Your task to perform on an android device: Open calendar and show me the first week of next month Image 0: 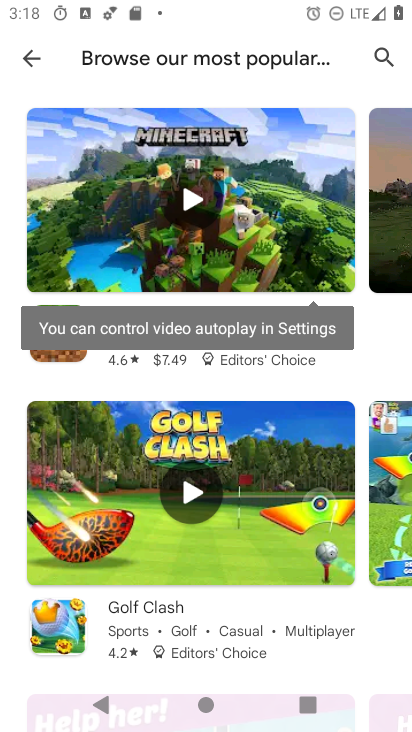
Step 0: press home button
Your task to perform on an android device: Open calendar and show me the first week of next month Image 1: 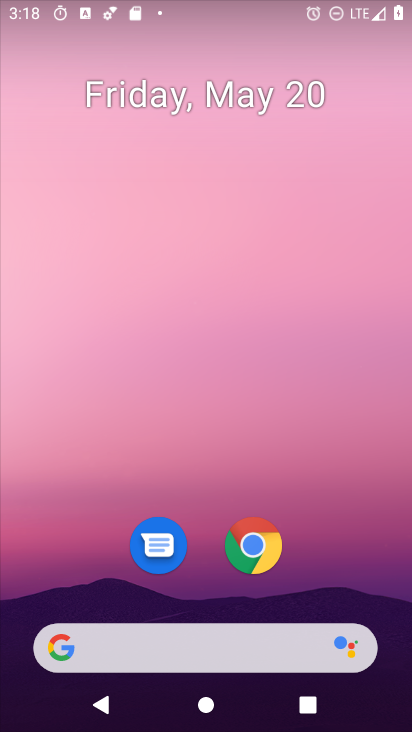
Step 1: drag from (328, 640) to (310, 3)
Your task to perform on an android device: Open calendar and show me the first week of next month Image 2: 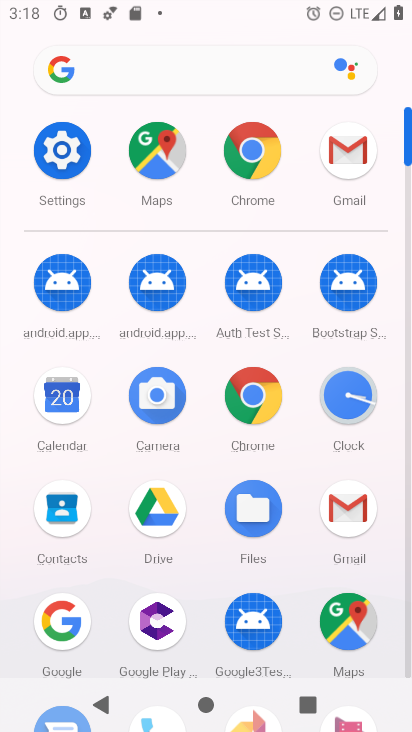
Step 2: click (81, 401)
Your task to perform on an android device: Open calendar and show me the first week of next month Image 3: 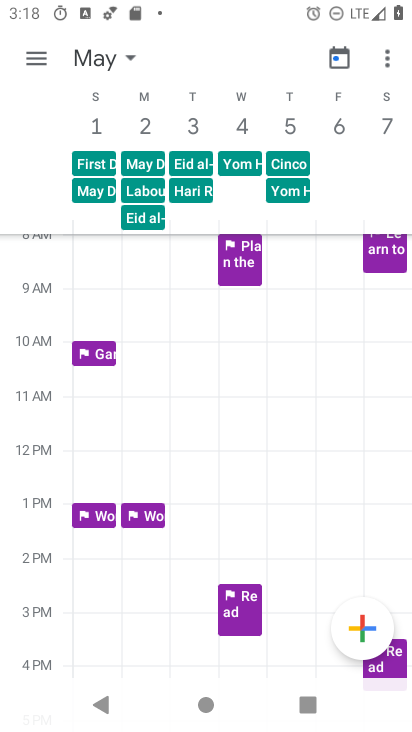
Step 3: click (133, 56)
Your task to perform on an android device: Open calendar and show me the first week of next month Image 4: 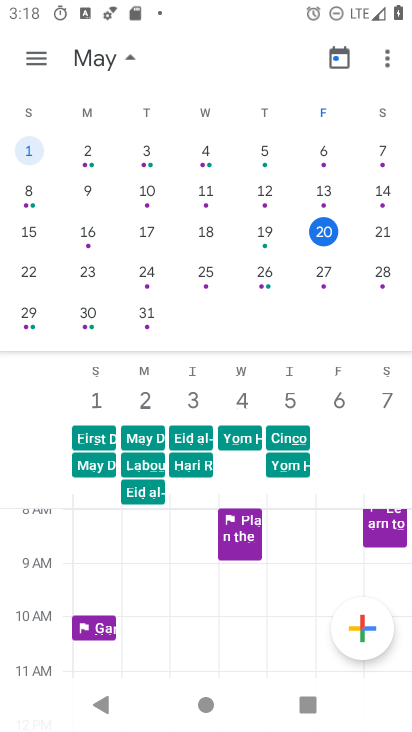
Step 4: drag from (367, 241) to (9, 272)
Your task to perform on an android device: Open calendar and show me the first week of next month Image 5: 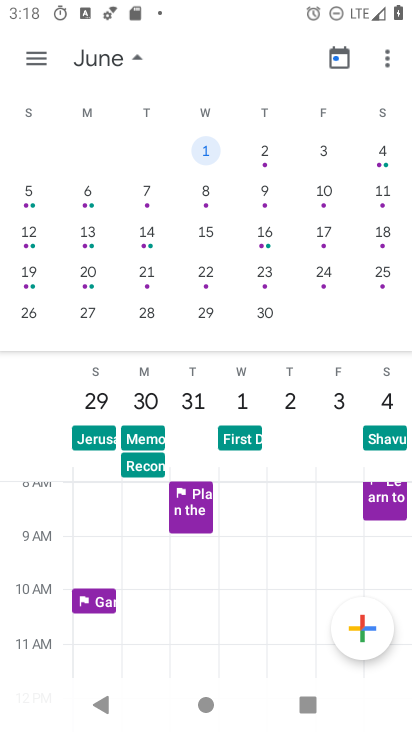
Step 5: click (311, 156)
Your task to perform on an android device: Open calendar and show me the first week of next month Image 6: 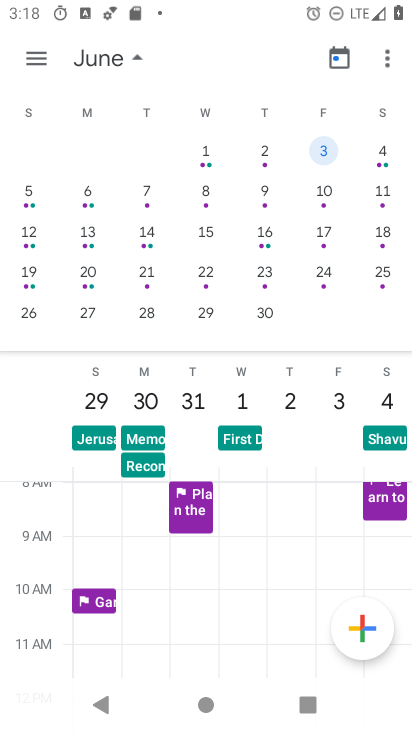
Step 6: click (27, 61)
Your task to perform on an android device: Open calendar and show me the first week of next month Image 7: 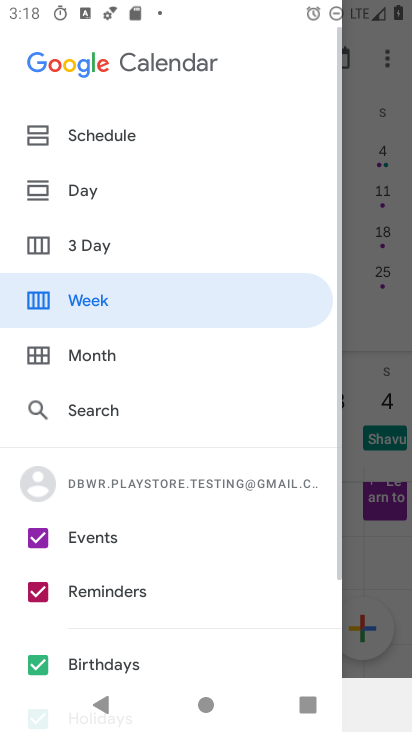
Step 7: click (126, 297)
Your task to perform on an android device: Open calendar and show me the first week of next month Image 8: 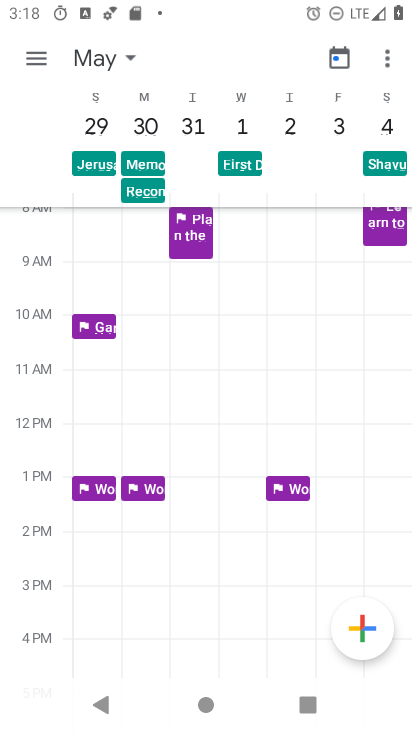
Step 8: task complete